Your task to perform on an android device: Do I have any events today? Image 0: 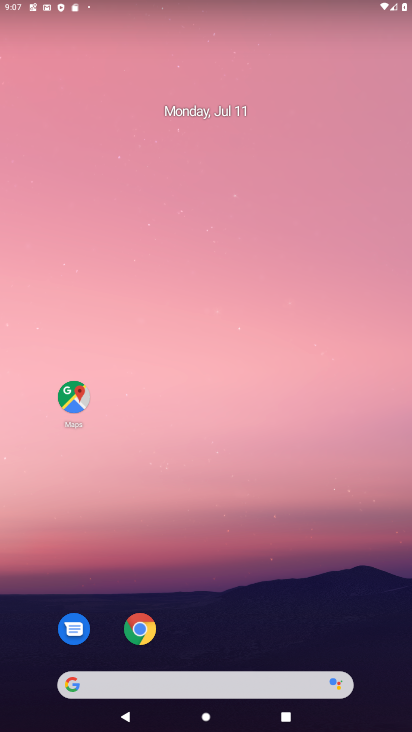
Step 0: drag from (273, 630) to (275, 56)
Your task to perform on an android device: Do I have any events today? Image 1: 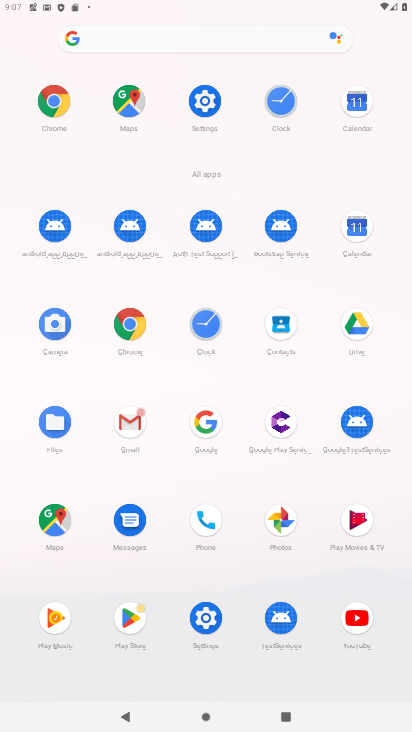
Step 1: click (352, 220)
Your task to perform on an android device: Do I have any events today? Image 2: 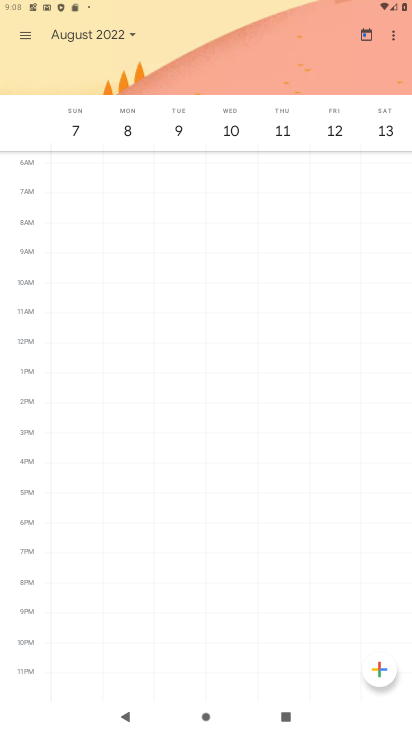
Step 2: click (25, 36)
Your task to perform on an android device: Do I have any events today? Image 3: 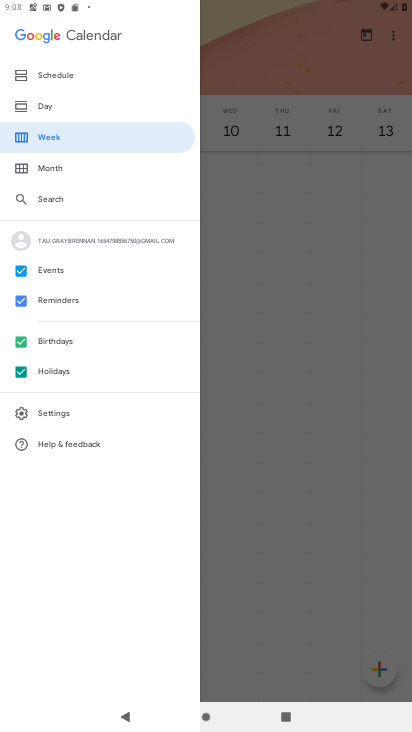
Step 3: click (47, 93)
Your task to perform on an android device: Do I have any events today? Image 4: 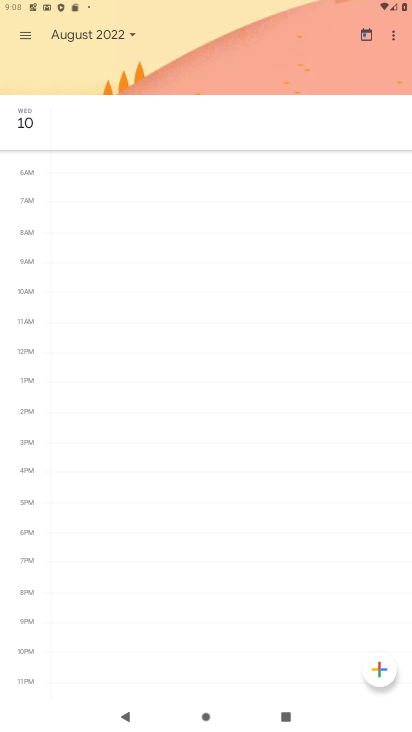
Step 4: click (114, 34)
Your task to perform on an android device: Do I have any events today? Image 5: 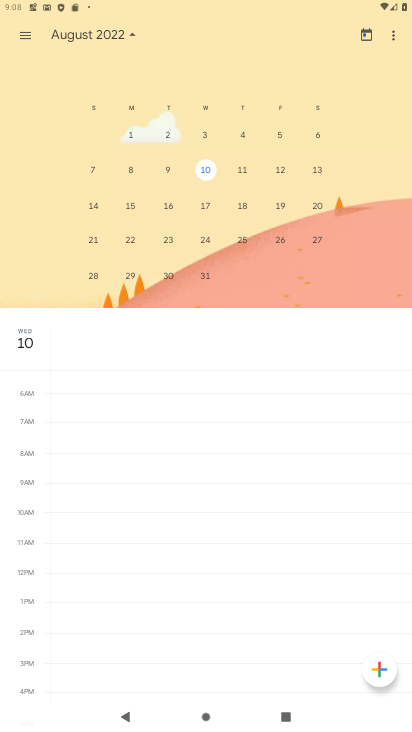
Step 5: drag from (110, 185) to (332, 186)
Your task to perform on an android device: Do I have any events today? Image 6: 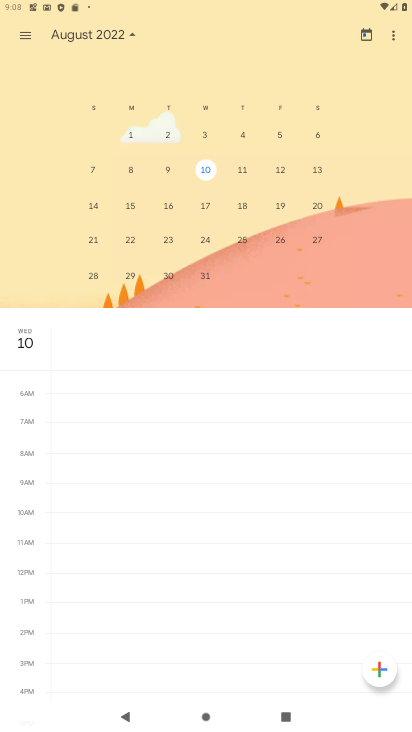
Step 6: drag from (46, 157) to (396, 170)
Your task to perform on an android device: Do I have any events today? Image 7: 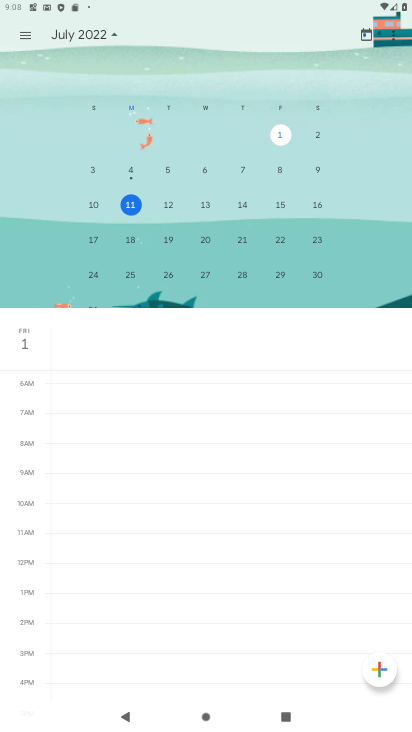
Step 7: click (136, 201)
Your task to perform on an android device: Do I have any events today? Image 8: 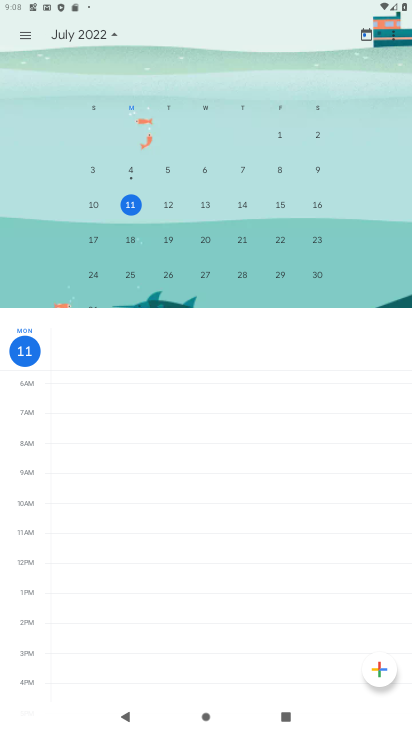
Step 8: click (132, 207)
Your task to perform on an android device: Do I have any events today? Image 9: 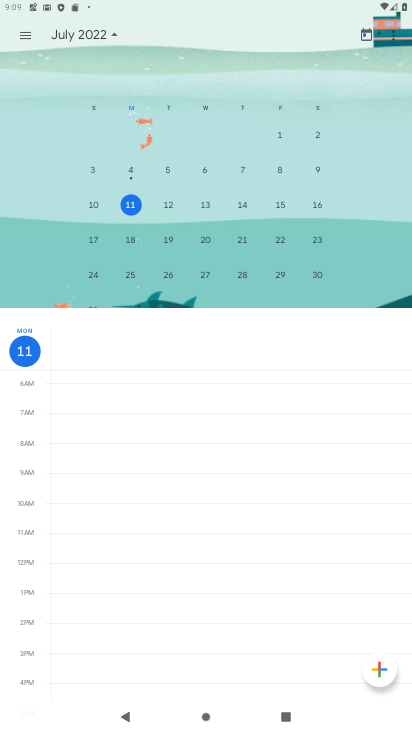
Step 9: task complete